Your task to perform on an android device: change the clock display to analog Image 0: 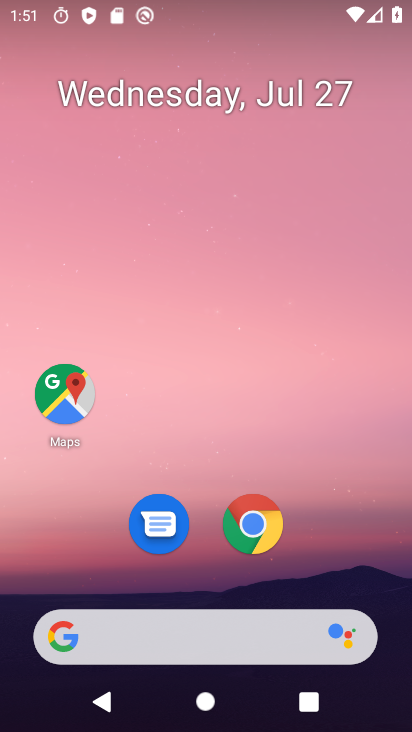
Step 0: drag from (235, 439) to (292, 0)
Your task to perform on an android device: change the clock display to analog Image 1: 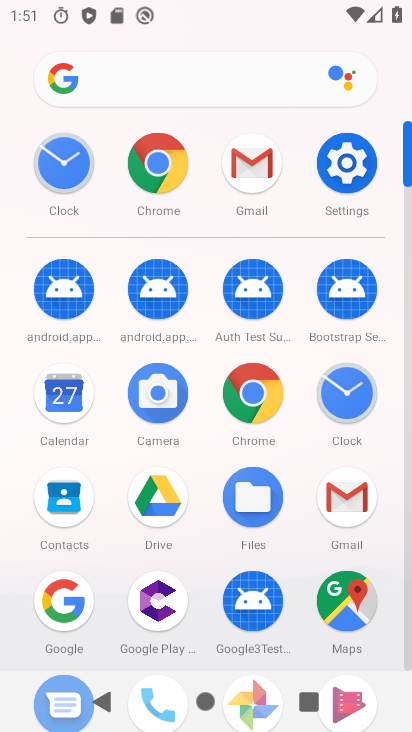
Step 1: click (76, 173)
Your task to perform on an android device: change the clock display to analog Image 2: 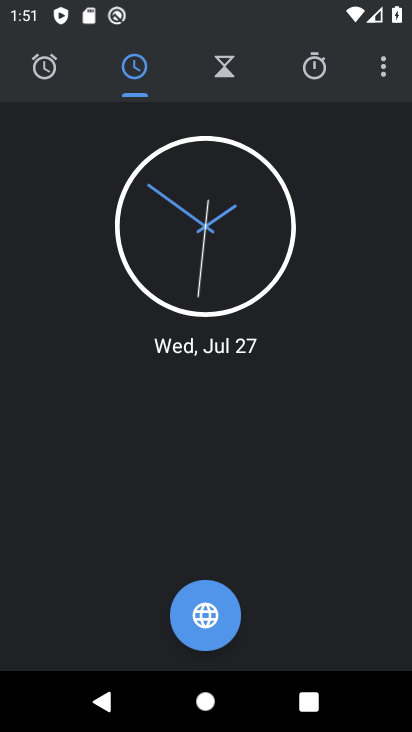
Step 2: task complete